Your task to perform on an android device: Open Google Maps Image 0: 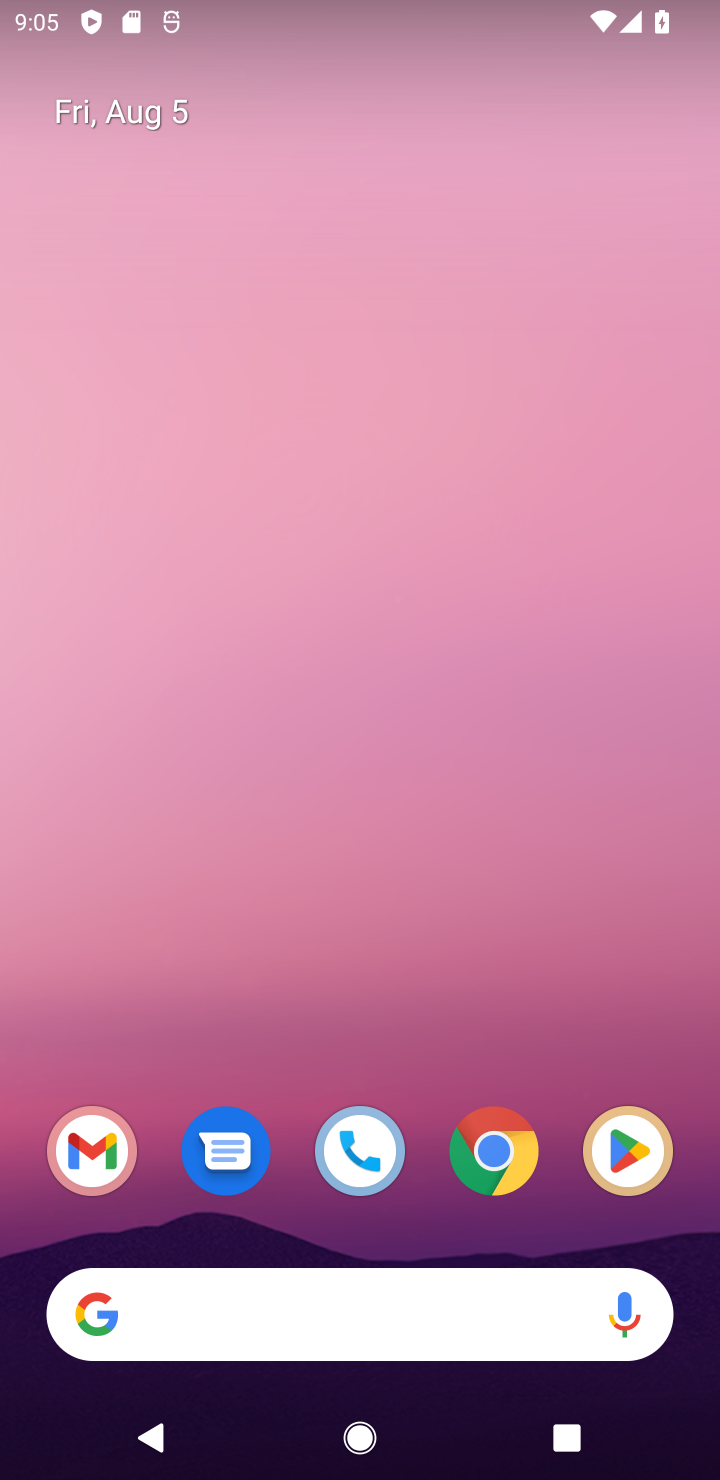
Step 0: drag from (184, 901) to (110, 5)
Your task to perform on an android device: Open Google Maps Image 1: 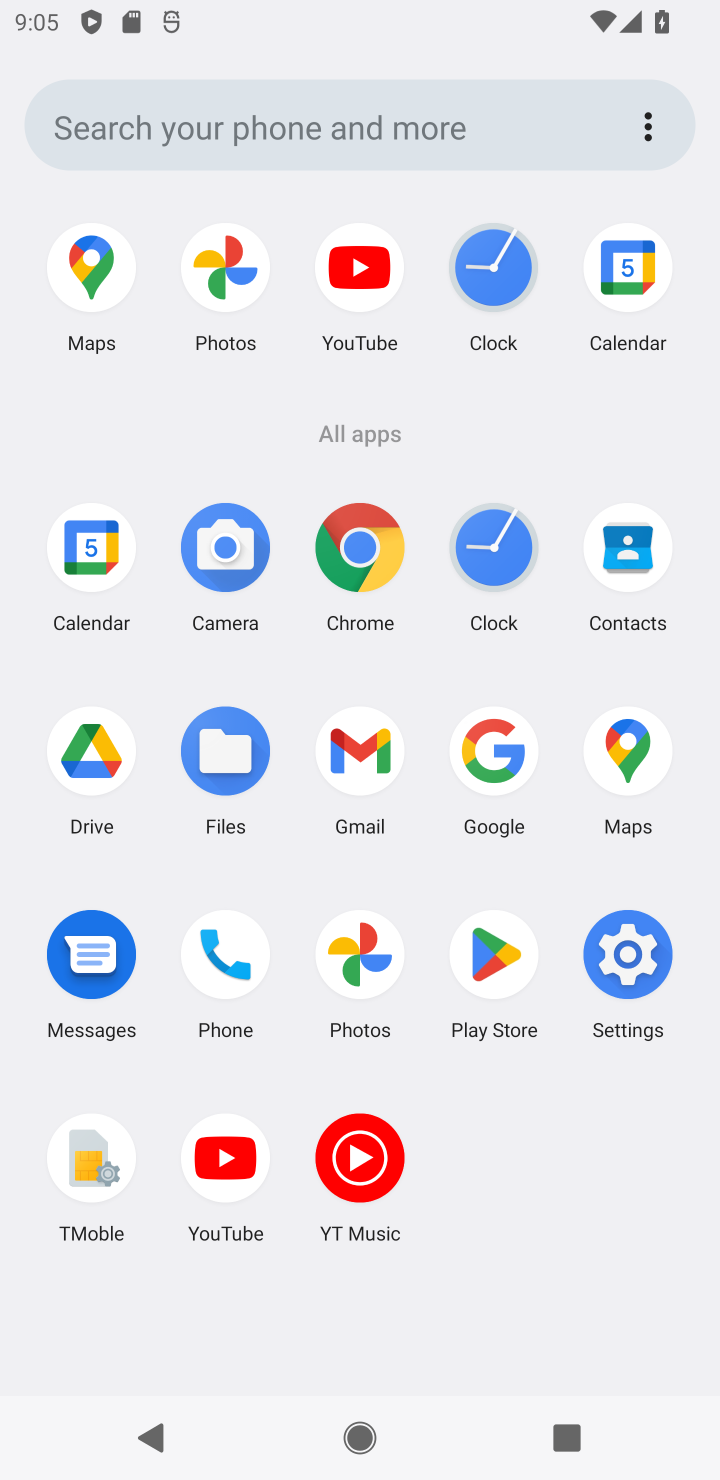
Step 1: click (640, 757)
Your task to perform on an android device: Open Google Maps Image 2: 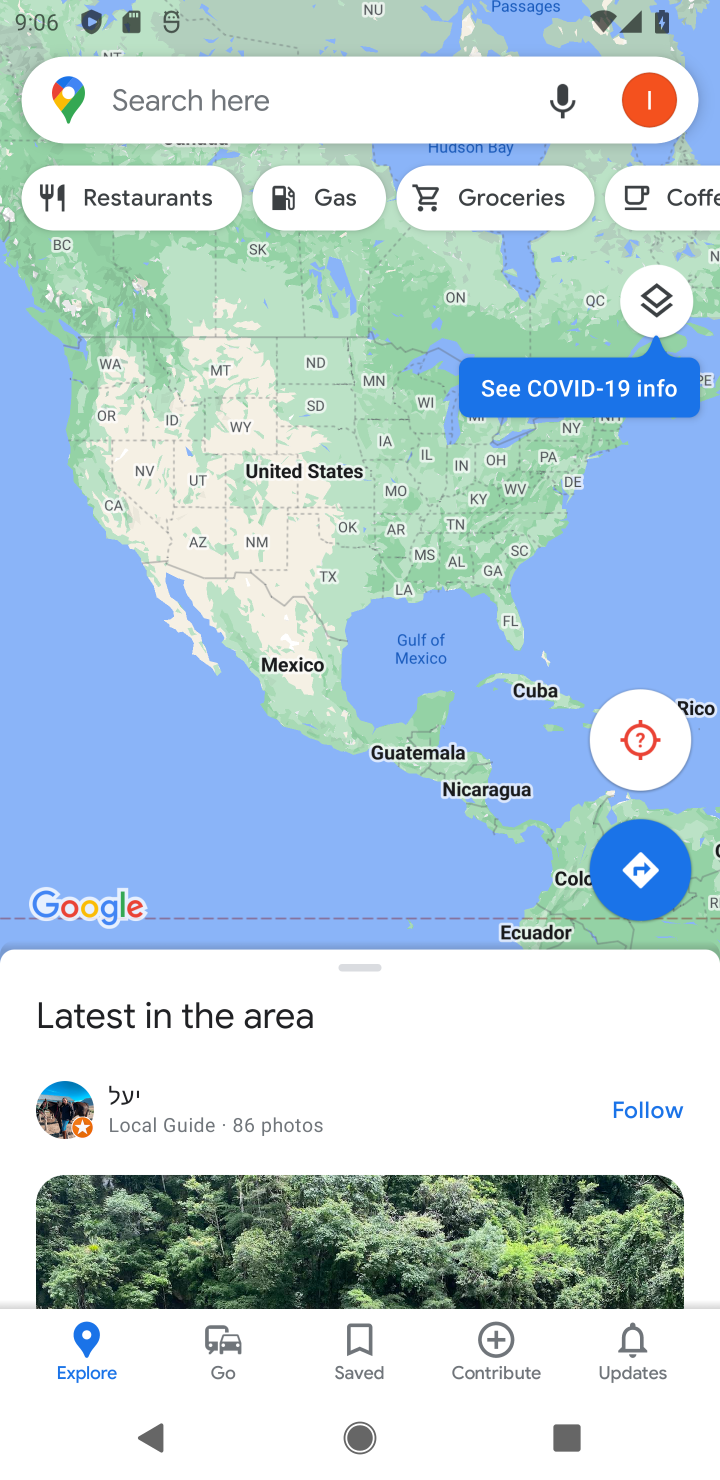
Step 2: task complete